Your task to perform on an android device: Search for sushi restaurants on Maps Image 0: 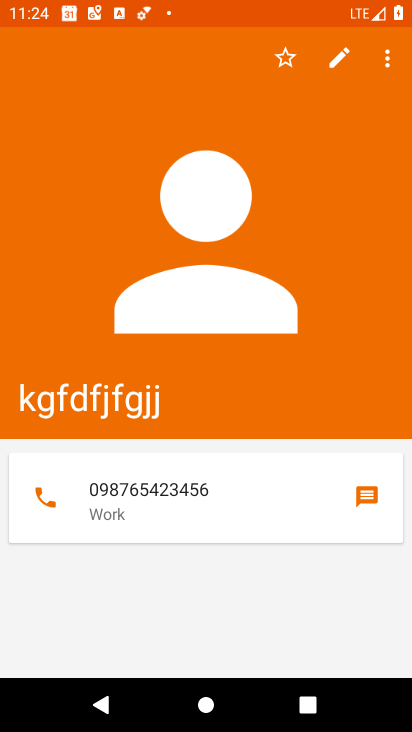
Step 0: press home button
Your task to perform on an android device: Search for sushi restaurants on Maps Image 1: 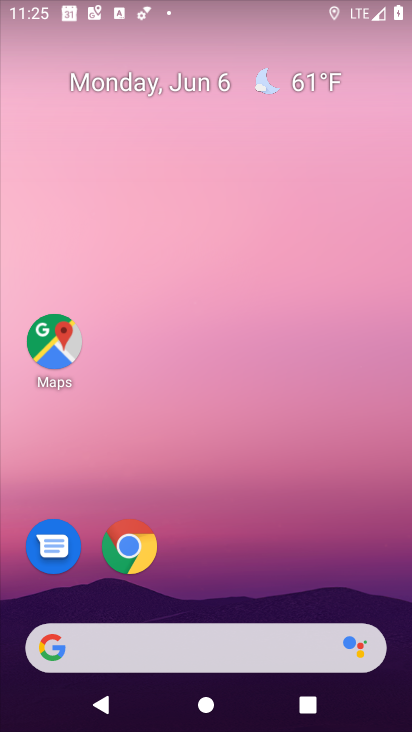
Step 1: click (54, 345)
Your task to perform on an android device: Search for sushi restaurants on Maps Image 2: 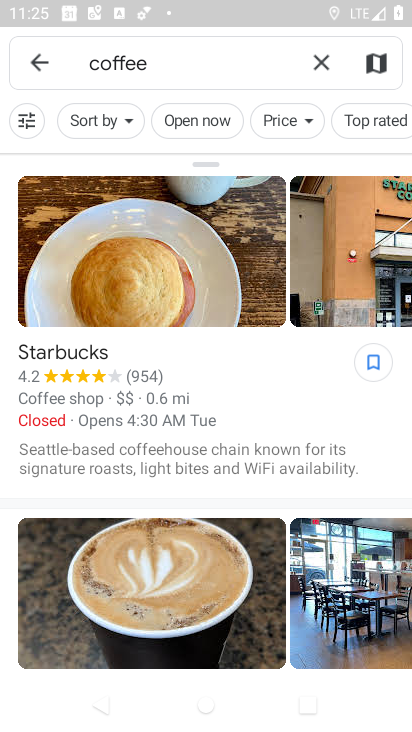
Step 2: click (320, 55)
Your task to perform on an android device: Search for sushi restaurants on Maps Image 3: 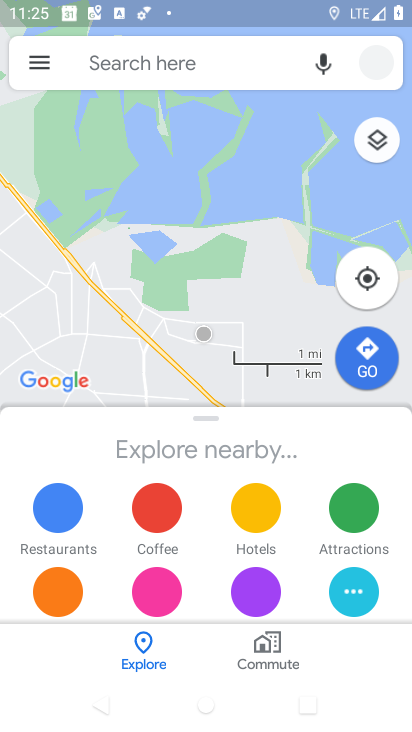
Step 3: click (153, 61)
Your task to perform on an android device: Search for sushi restaurants on Maps Image 4: 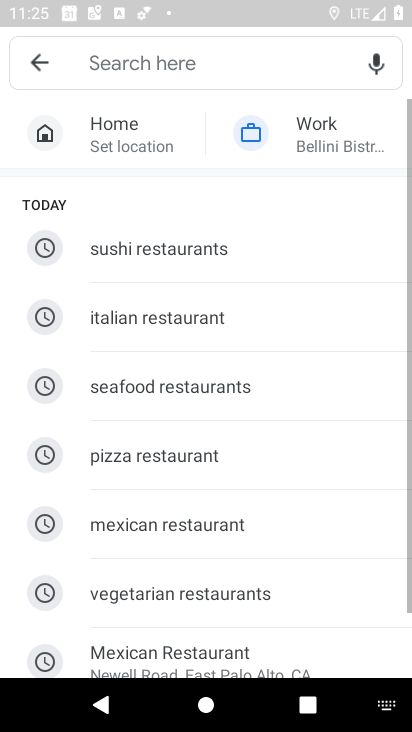
Step 4: click (137, 54)
Your task to perform on an android device: Search for sushi restaurants on Maps Image 5: 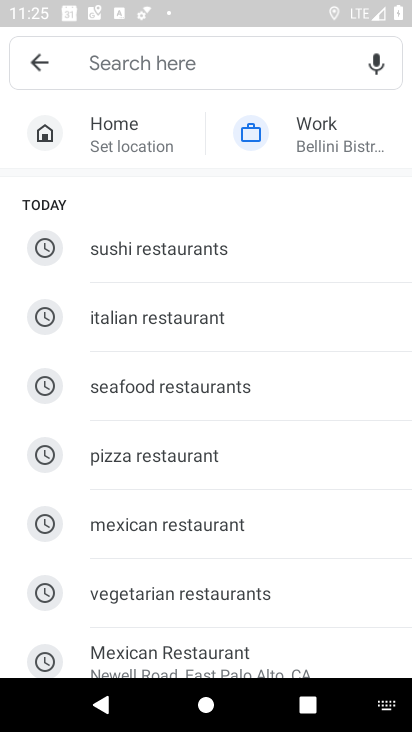
Step 5: type "sushi restaurants"
Your task to perform on an android device: Search for sushi restaurants on Maps Image 6: 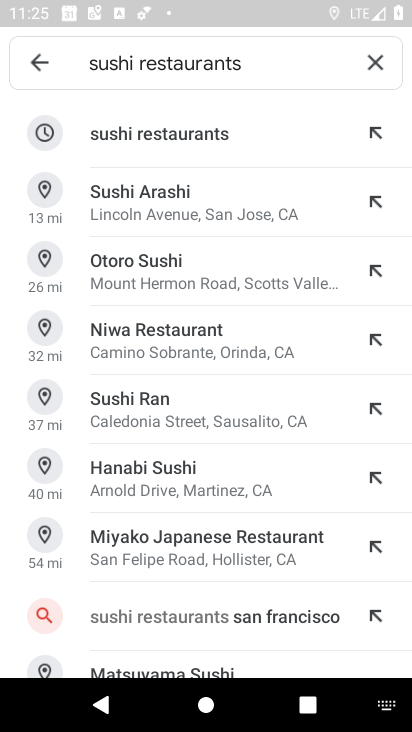
Step 6: click (153, 140)
Your task to perform on an android device: Search for sushi restaurants on Maps Image 7: 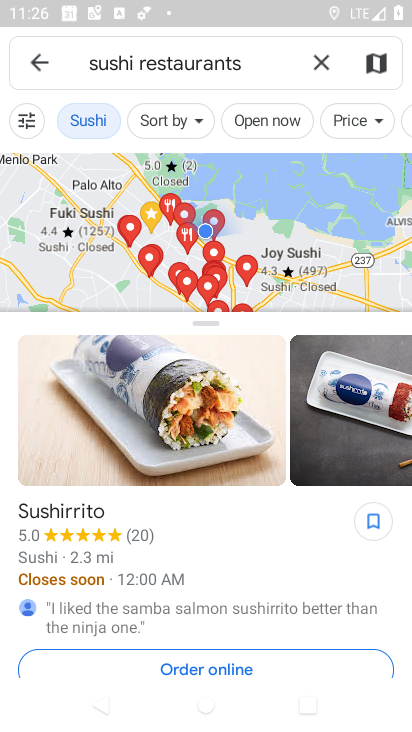
Step 7: task complete